Your task to perform on an android device: Go to Reddit.com Image 0: 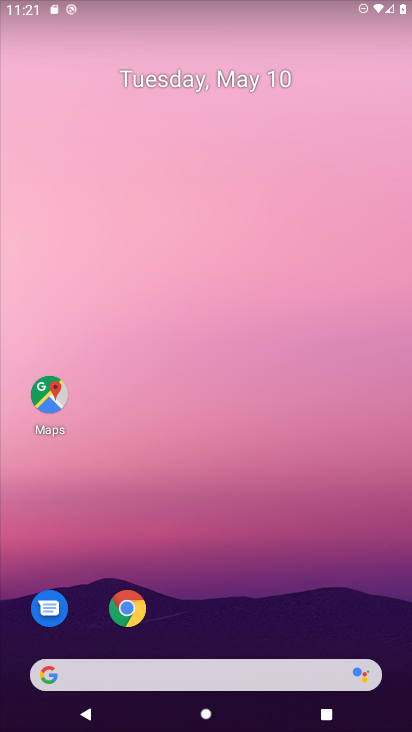
Step 0: click (266, 686)
Your task to perform on an android device: Go to Reddit.com Image 1: 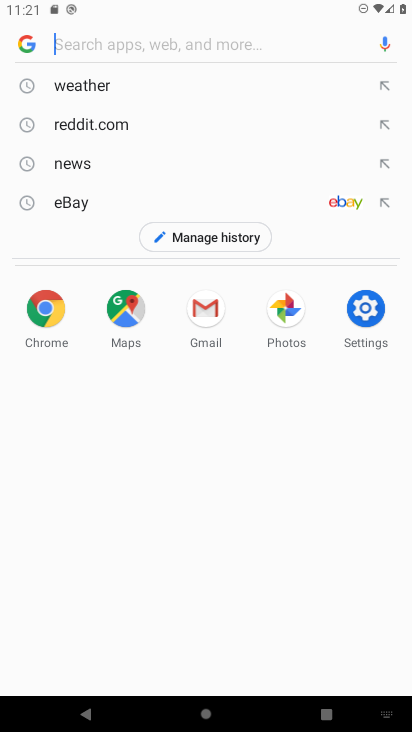
Step 1: click (95, 119)
Your task to perform on an android device: Go to Reddit.com Image 2: 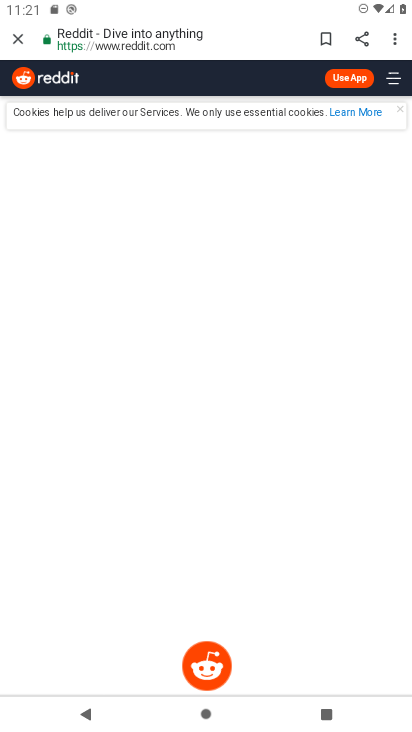
Step 2: task complete